Your task to perform on an android device: change timer sound Image 0: 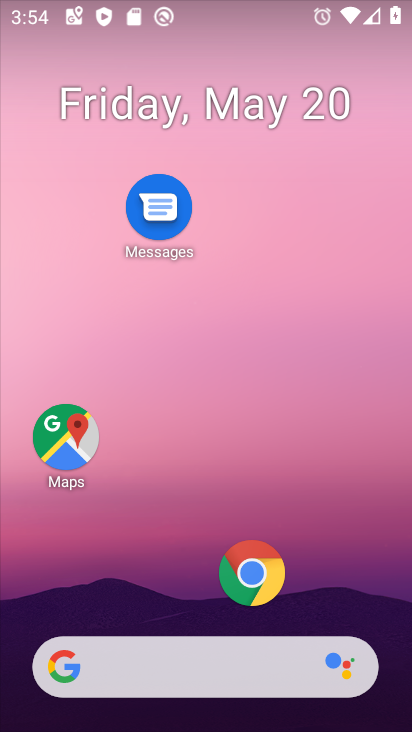
Step 0: drag from (226, 619) to (367, 6)
Your task to perform on an android device: change timer sound Image 1: 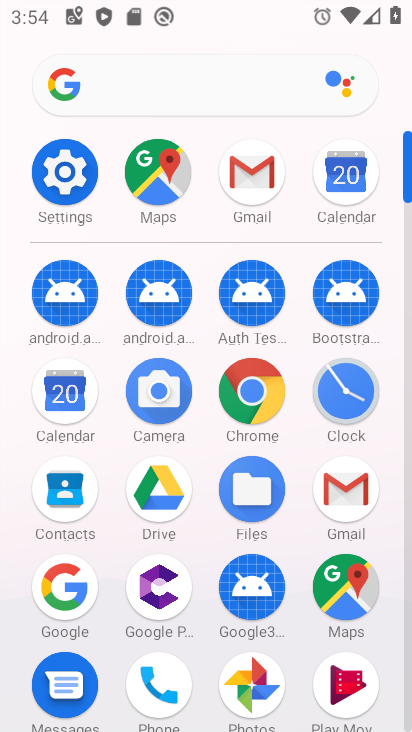
Step 1: click (334, 386)
Your task to perform on an android device: change timer sound Image 2: 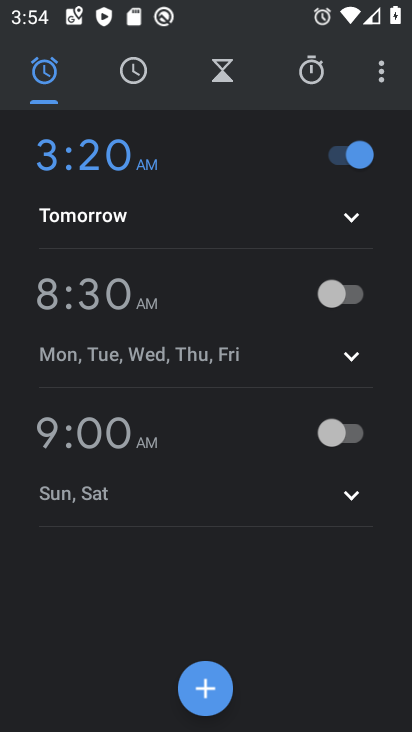
Step 2: click (378, 67)
Your task to perform on an android device: change timer sound Image 3: 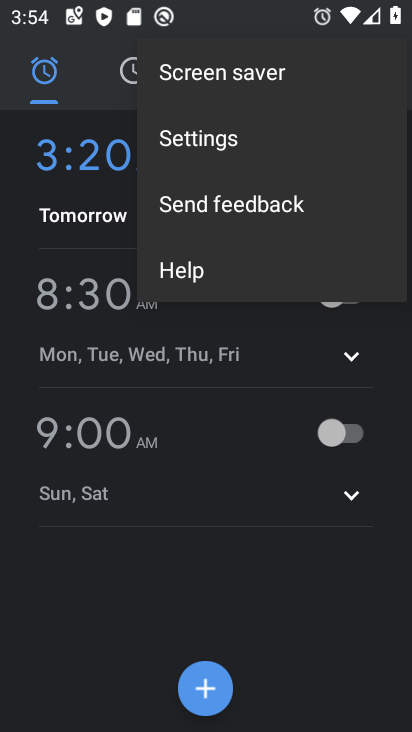
Step 3: click (234, 149)
Your task to perform on an android device: change timer sound Image 4: 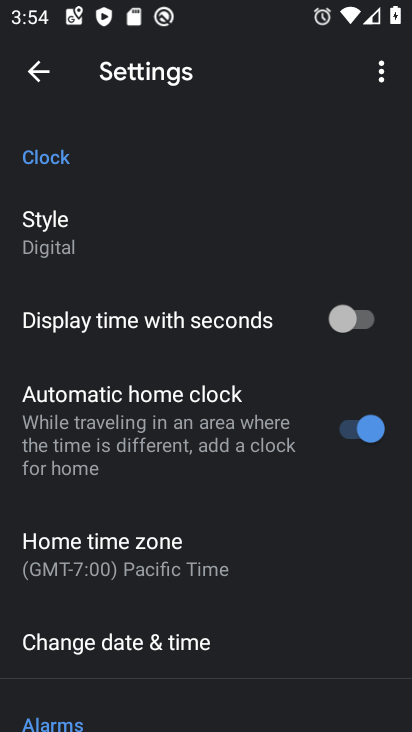
Step 4: drag from (128, 626) to (109, 152)
Your task to perform on an android device: change timer sound Image 5: 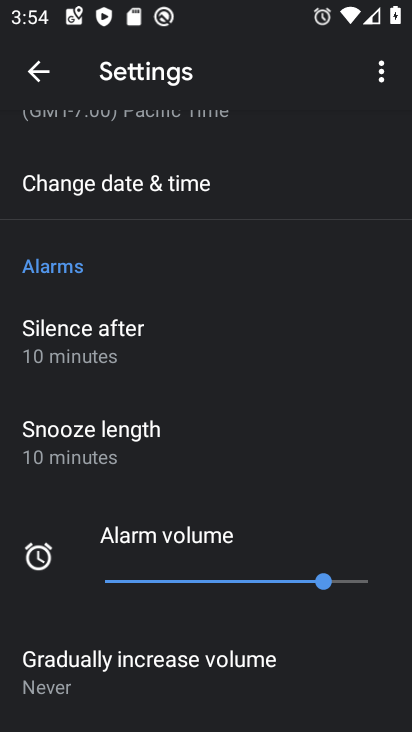
Step 5: drag from (213, 474) to (183, 99)
Your task to perform on an android device: change timer sound Image 6: 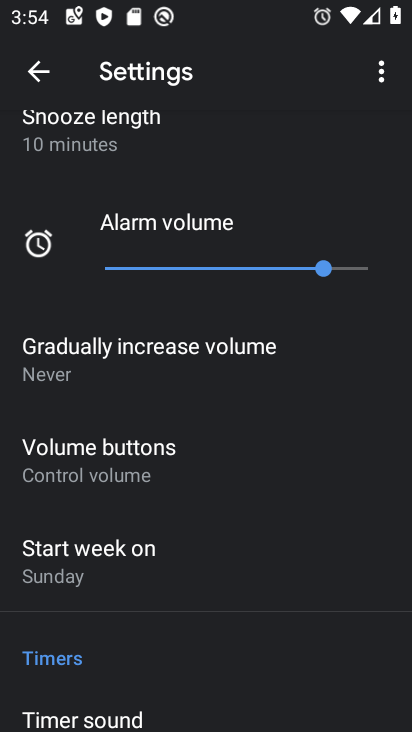
Step 6: click (113, 722)
Your task to perform on an android device: change timer sound Image 7: 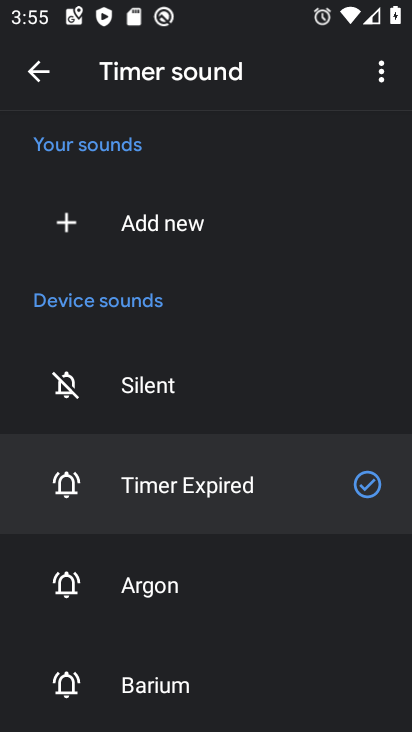
Step 7: click (230, 590)
Your task to perform on an android device: change timer sound Image 8: 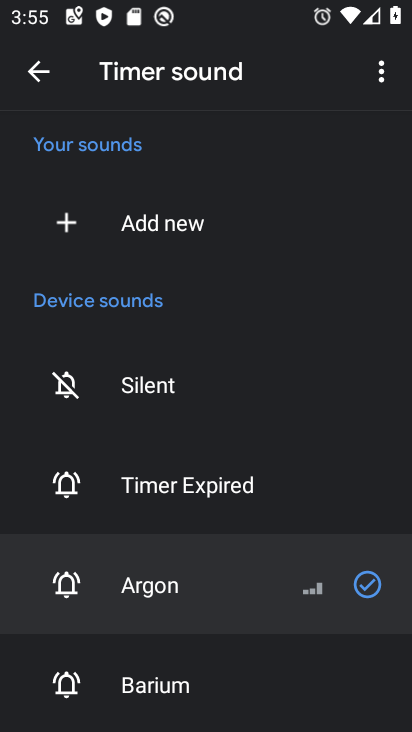
Step 8: task complete